Your task to perform on an android device: toggle translation in the chrome app Image 0: 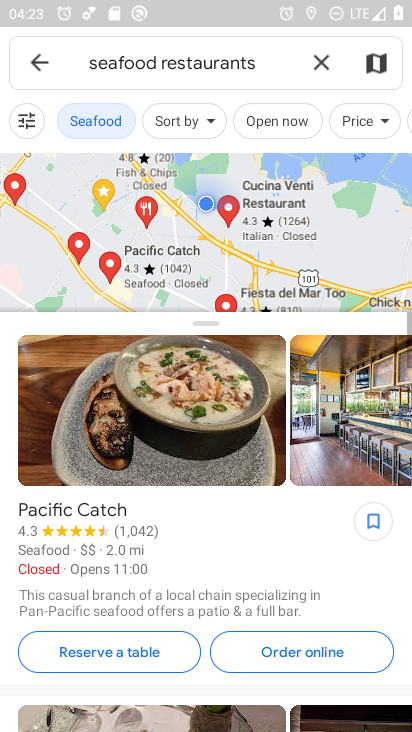
Step 0: press home button
Your task to perform on an android device: toggle translation in the chrome app Image 1: 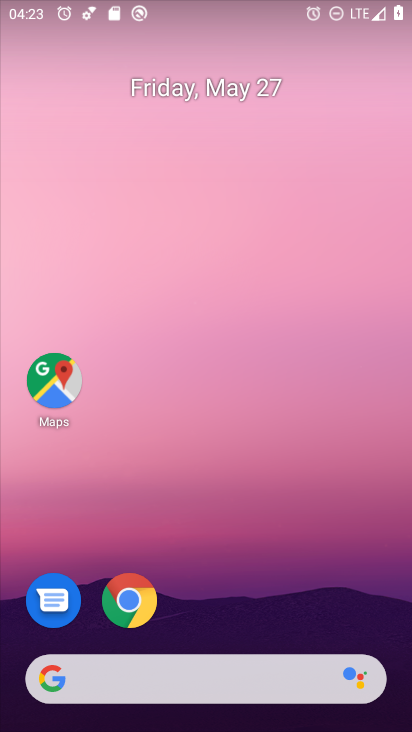
Step 1: click (132, 612)
Your task to perform on an android device: toggle translation in the chrome app Image 2: 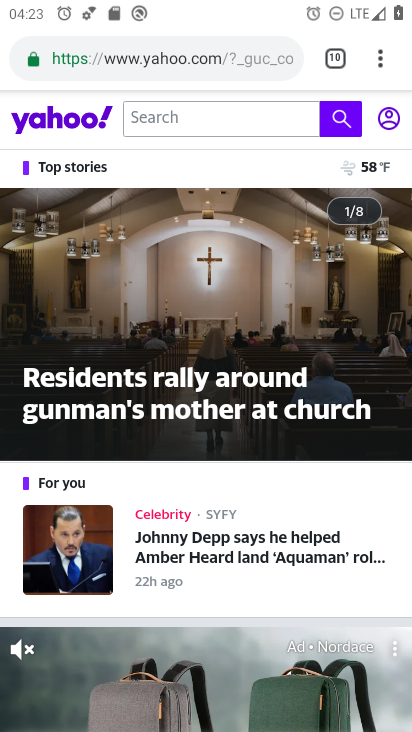
Step 2: click (381, 64)
Your task to perform on an android device: toggle translation in the chrome app Image 3: 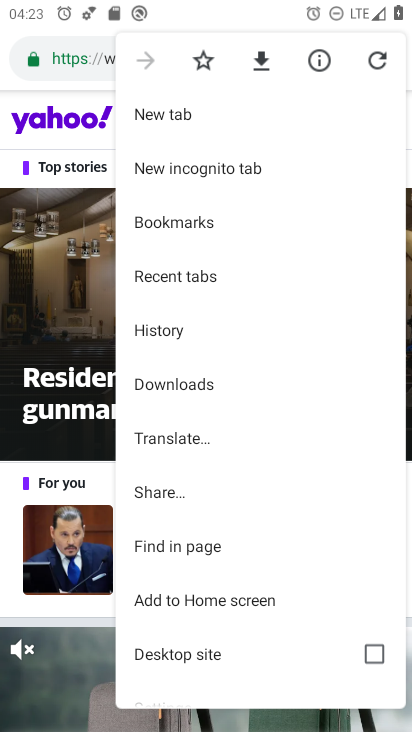
Step 3: drag from (191, 623) to (198, 210)
Your task to perform on an android device: toggle translation in the chrome app Image 4: 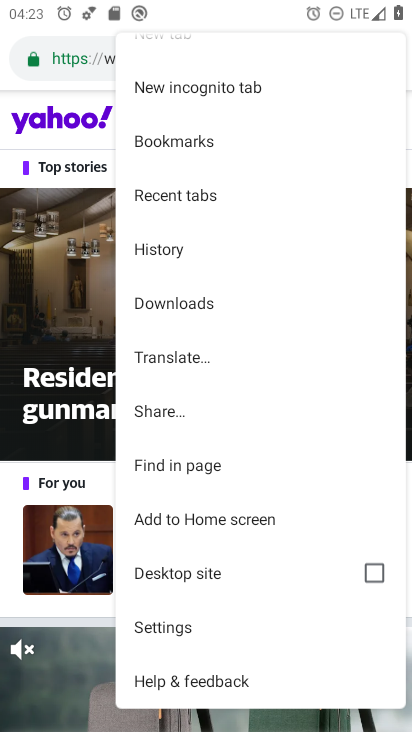
Step 4: click (171, 622)
Your task to perform on an android device: toggle translation in the chrome app Image 5: 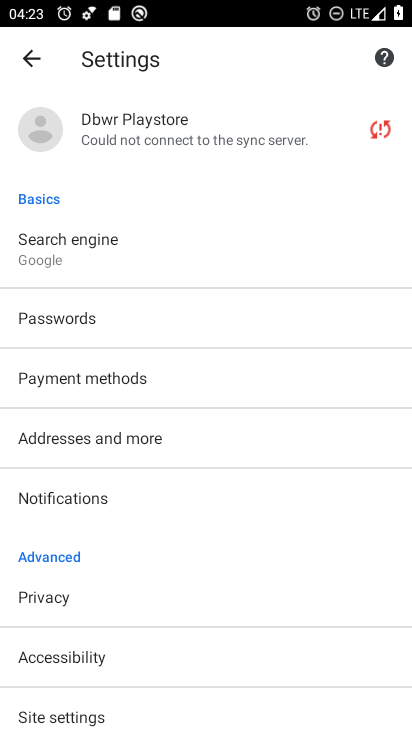
Step 5: drag from (124, 705) to (187, 366)
Your task to perform on an android device: toggle translation in the chrome app Image 6: 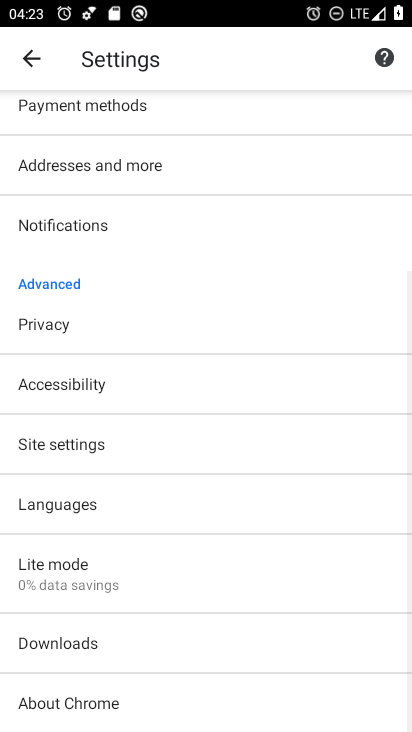
Step 6: click (83, 508)
Your task to perform on an android device: toggle translation in the chrome app Image 7: 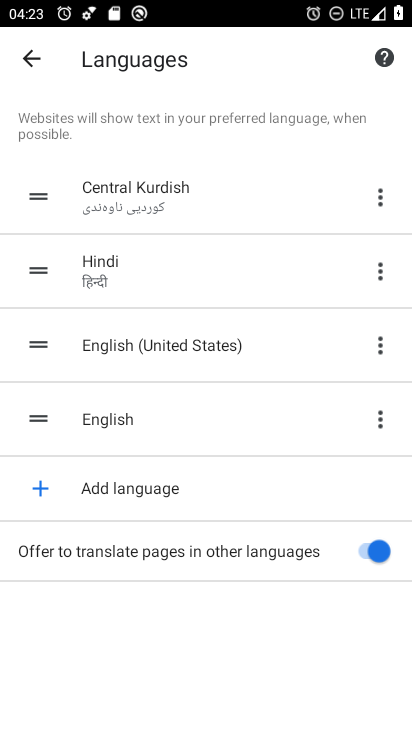
Step 7: click (359, 548)
Your task to perform on an android device: toggle translation in the chrome app Image 8: 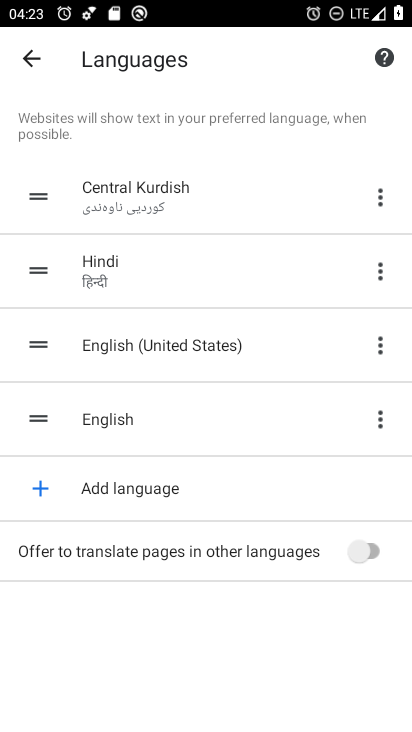
Step 8: task complete